Your task to perform on an android device: What's the latest news in astrophysics? Image 0: 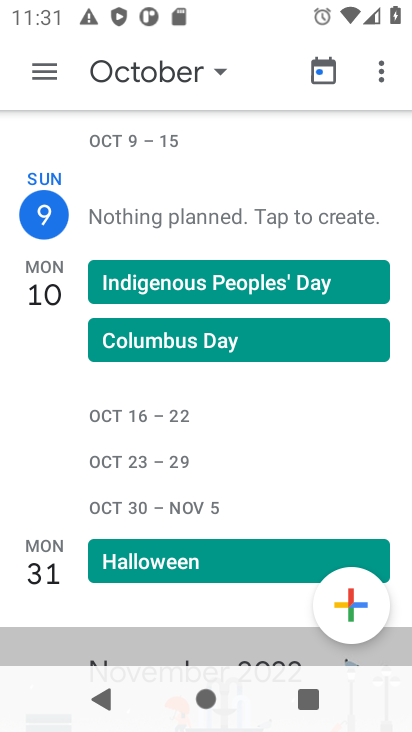
Step 0: press home button
Your task to perform on an android device: What's the latest news in astrophysics? Image 1: 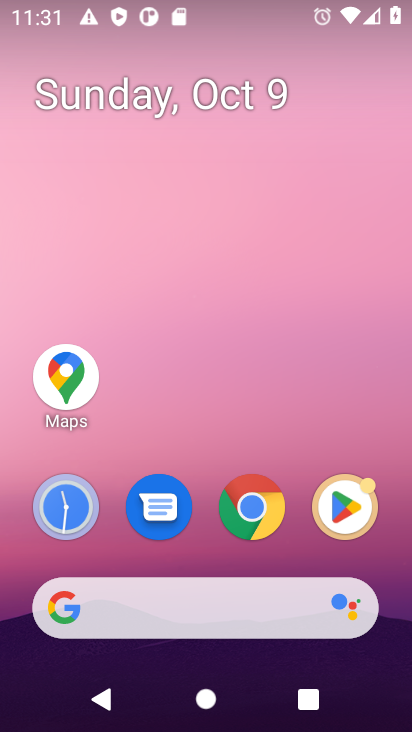
Step 1: click (192, 612)
Your task to perform on an android device: What's the latest news in astrophysics? Image 2: 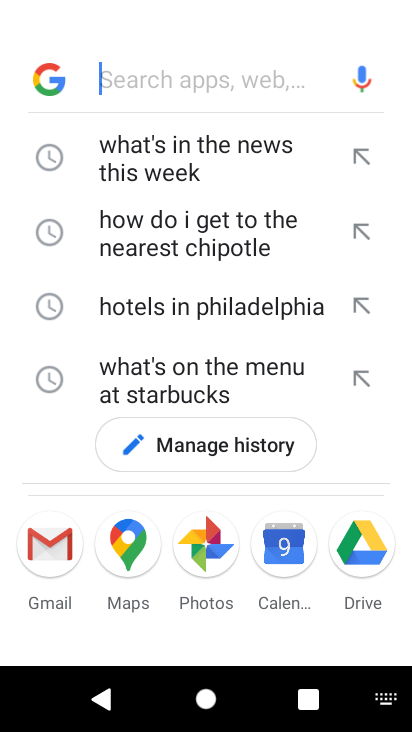
Step 2: type "What's the latest news in astrophysics"
Your task to perform on an android device: What's the latest news in astrophysics? Image 3: 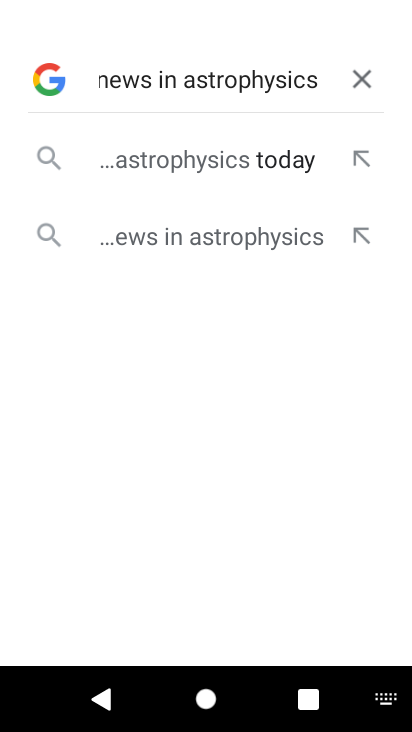
Step 3: press enter
Your task to perform on an android device: What's the latest news in astrophysics? Image 4: 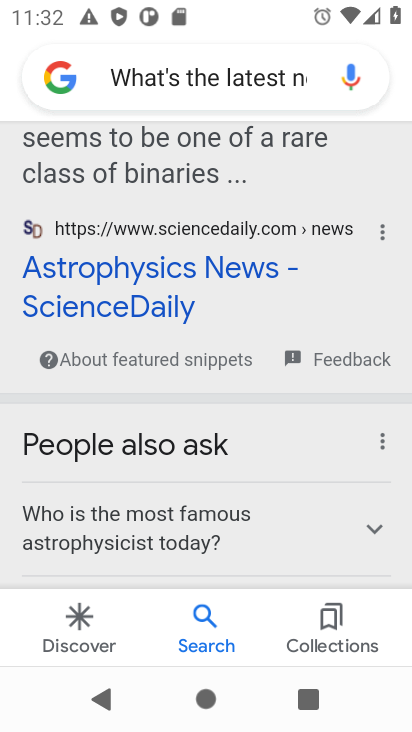
Step 4: drag from (288, 192) to (282, 413)
Your task to perform on an android device: What's the latest news in astrophysics? Image 5: 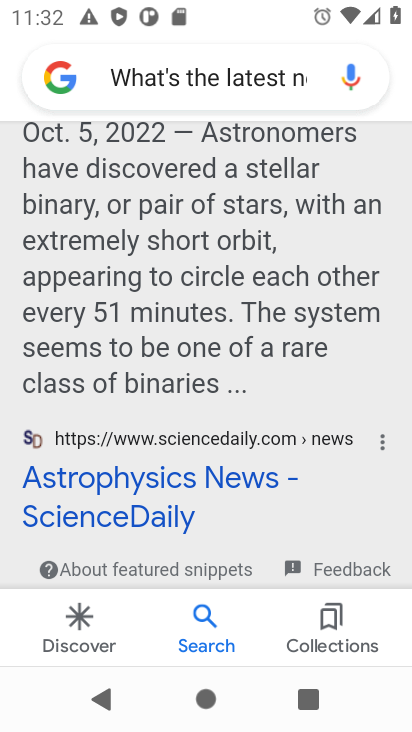
Step 5: drag from (301, 185) to (278, 459)
Your task to perform on an android device: What's the latest news in astrophysics? Image 6: 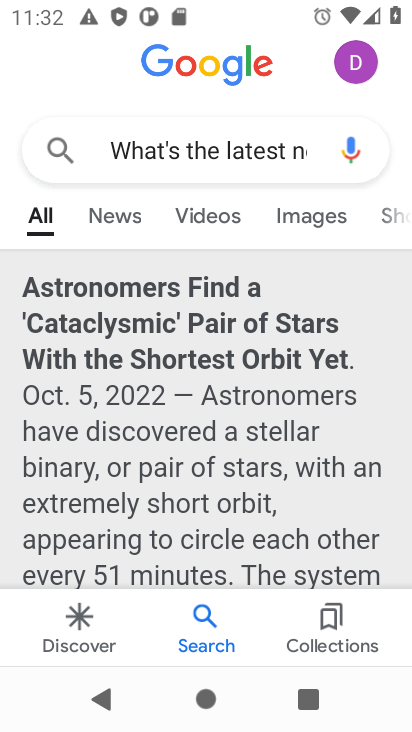
Step 6: drag from (263, 481) to (273, 260)
Your task to perform on an android device: What's the latest news in astrophysics? Image 7: 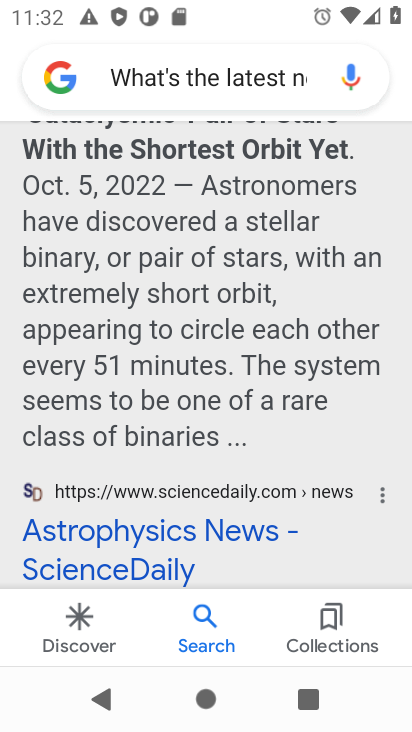
Step 7: drag from (254, 433) to (264, 284)
Your task to perform on an android device: What's the latest news in astrophysics? Image 8: 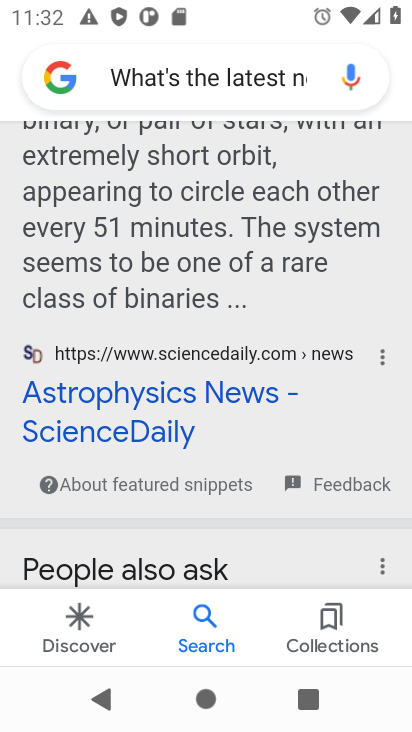
Step 8: click (172, 415)
Your task to perform on an android device: What's the latest news in astrophysics? Image 9: 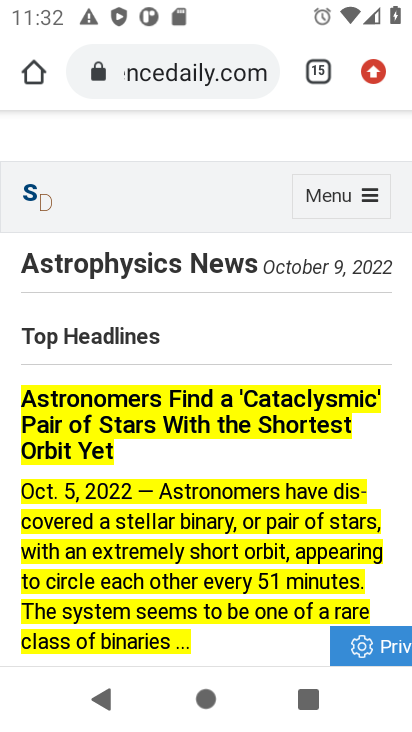
Step 9: task complete